Your task to perform on an android device: allow cookies in the chrome app Image 0: 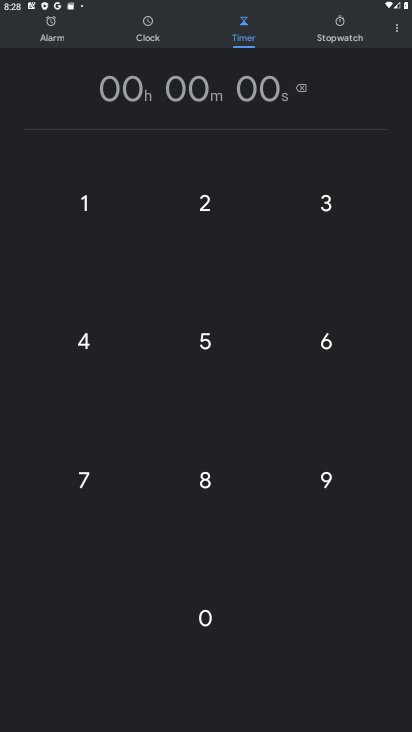
Step 0: press home button
Your task to perform on an android device: allow cookies in the chrome app Image 1: 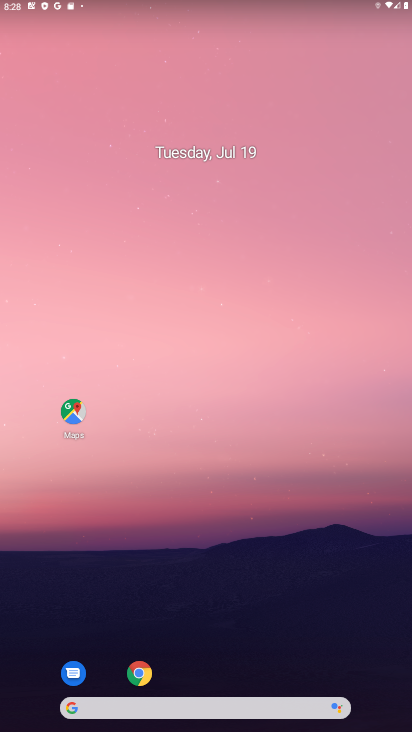
Step 1: click (147, 676)
Your task to perform on an android device: allow cookies in the chrome app Image 2: 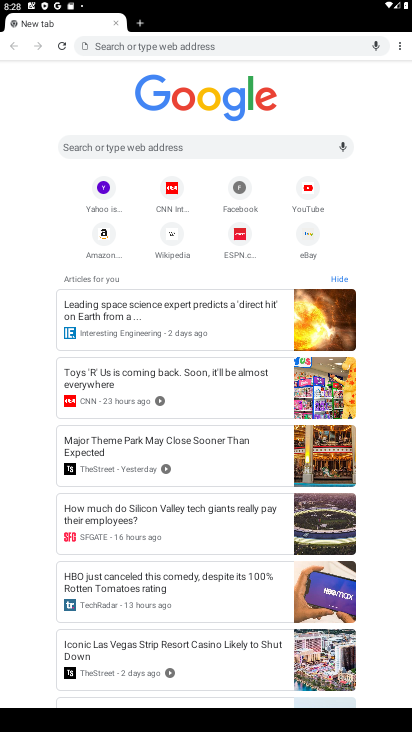
Step 2: click (390, 50)
Your task to perform on an android device: allow cookies in the chrome app Image 3: 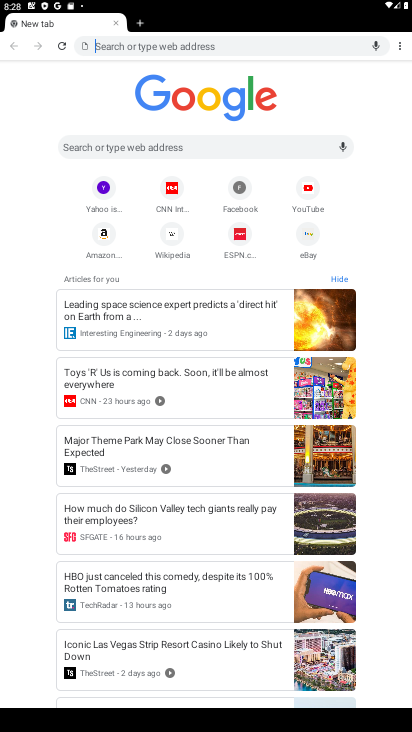
Step 3: click (399, 50)
Your task to perform on an android device: allow cookies in the chrome app Image 4: 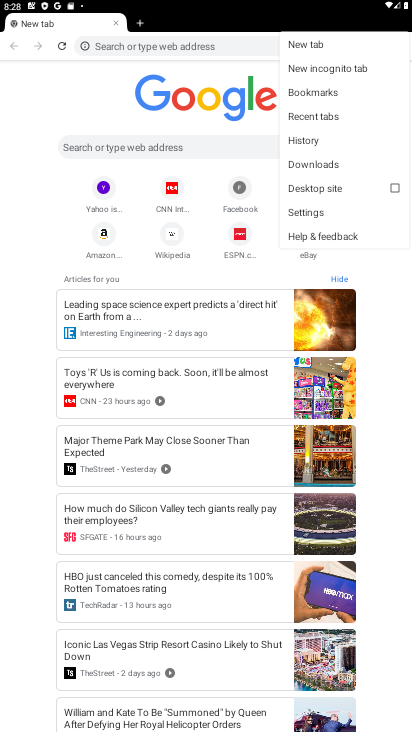
Step 4: click (308, 212)
Your task to perform on an android device: allow cookies in the chrome app Image 5: 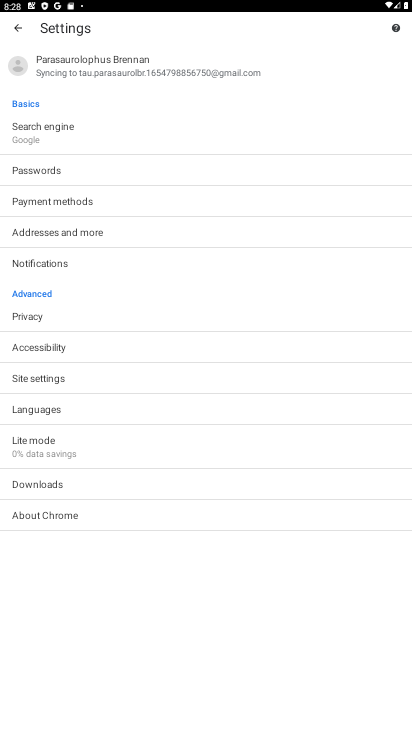
Step 5: task complete